Your task to perform on an android device: Find coffee shops on Maps Image 0: 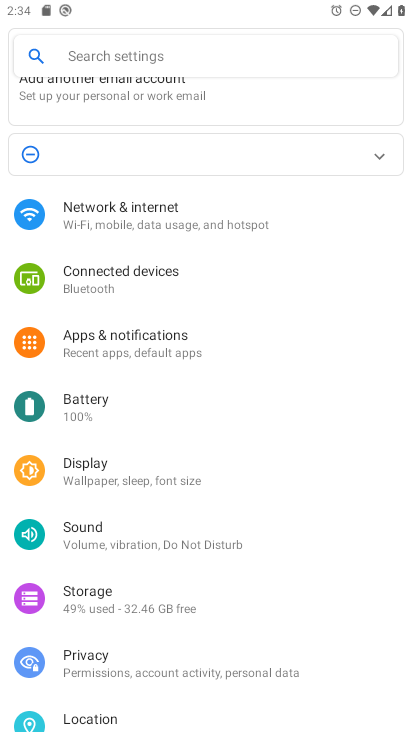
Step 0: press home button
Your task to perform on an android device: Find coffee shops on Maps Image 1: 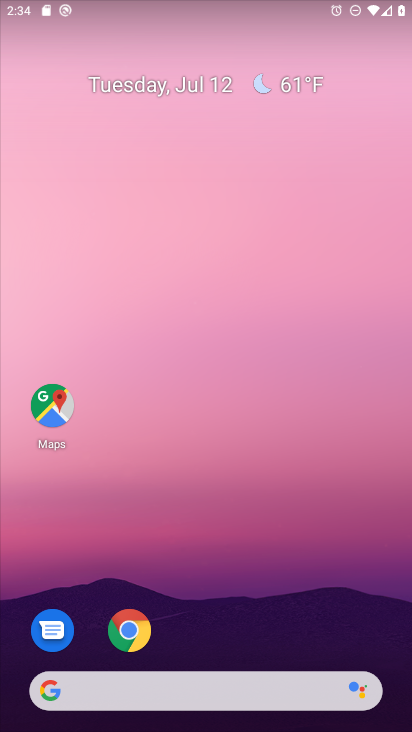
Step 1: click (33, 412)
Your task to perform on an android device: Find coffee shops on Maps Image 2: 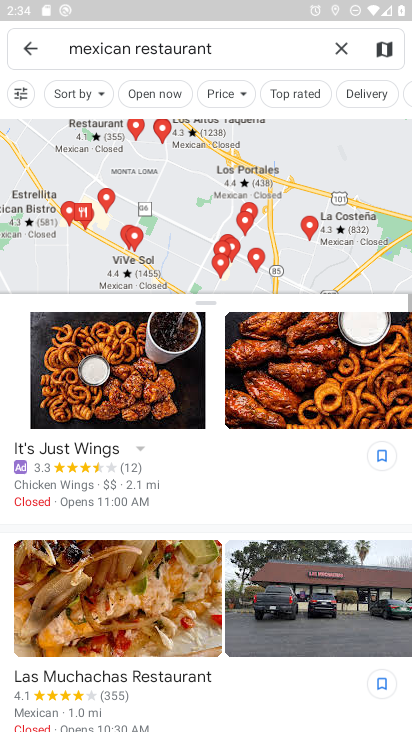
Step 2: click (337, 62)
Your task to perform on an android device: Find coffee shops on Maps Image 3: 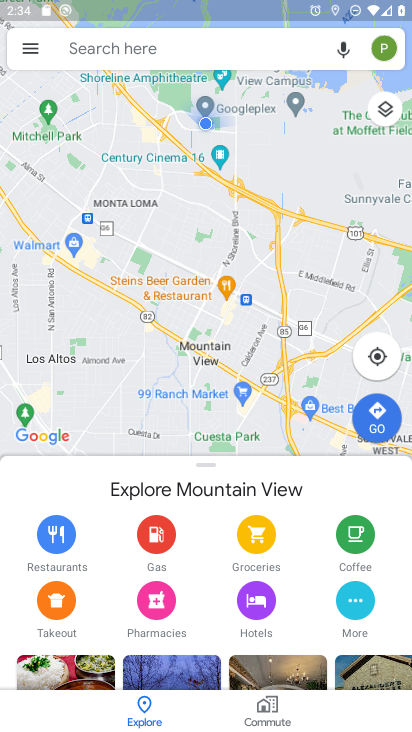
Step 3: click (153, 53)
Your task to perform on an android device: Find coffee shops on Maps Image 4: 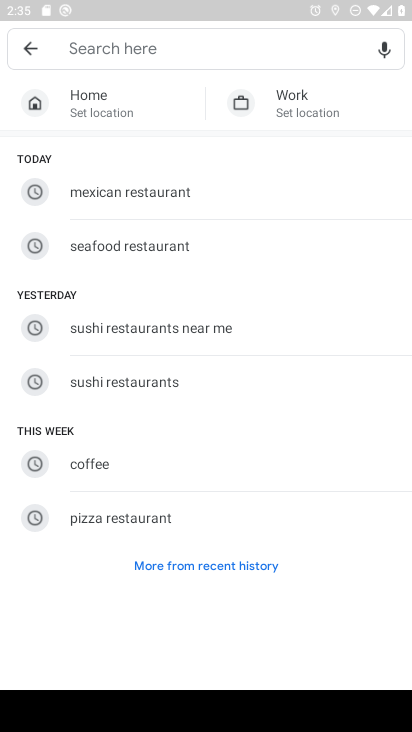
Step 4: type "coffee shops"
Your task to perform on an android device: Find coffee shops on Maps Image 5: 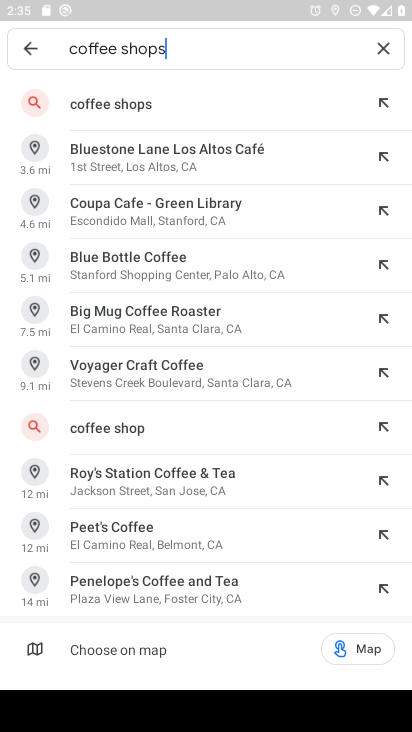
Step 5: click (204, 107)
Your task to perform on an android device: Find coffee shops on Maps Image 6: 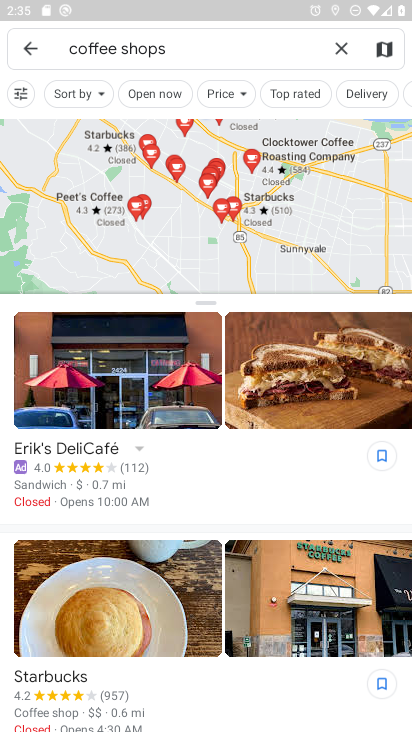
Step 6: task complete